Your task to perform on an android device: Open Yahoo.com Image 0: 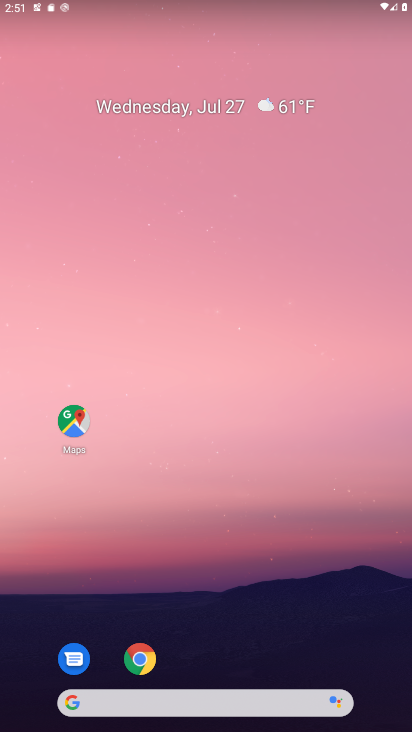
Step 0: drag from (230, 292) to (215, 81)
Your task to perform on an android device: Open Yahoo.com Image 1: 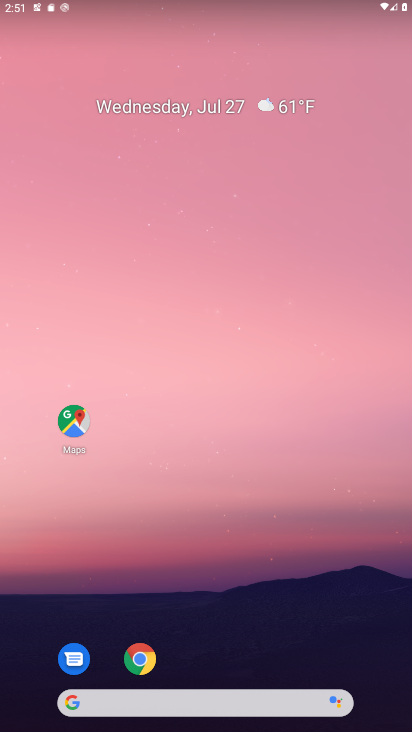
Step 1: click (132, 668)
Your task to perform on an android device: Open Yahoo.com Image 2: 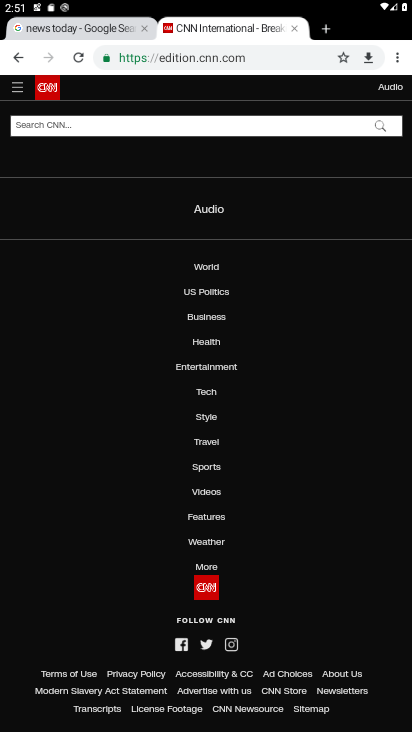
Step 2: click (212, 64)
Your task to perform on an android device: Open Yahoo.com Image 3: 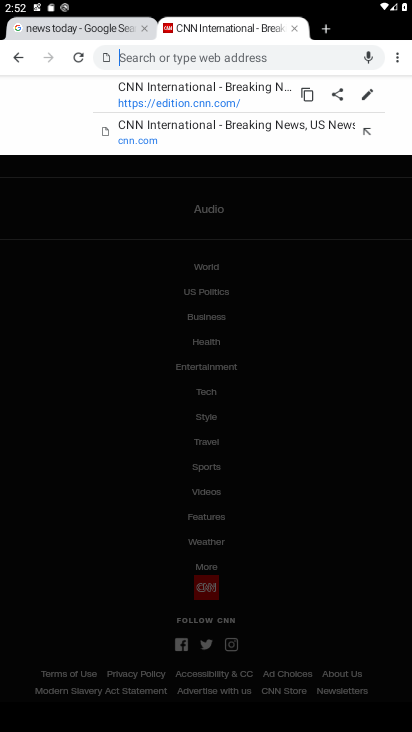
Step 3: type "yahoo.com"
Your task to perform on an android device: Open Yahoo.com Image 4: 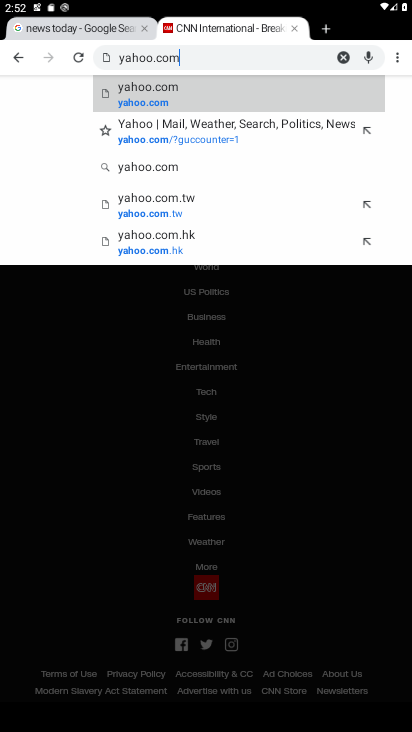
Step 4: click (131, 92)
Your task to perform on an android device: Open Yahoo.com Image 5: 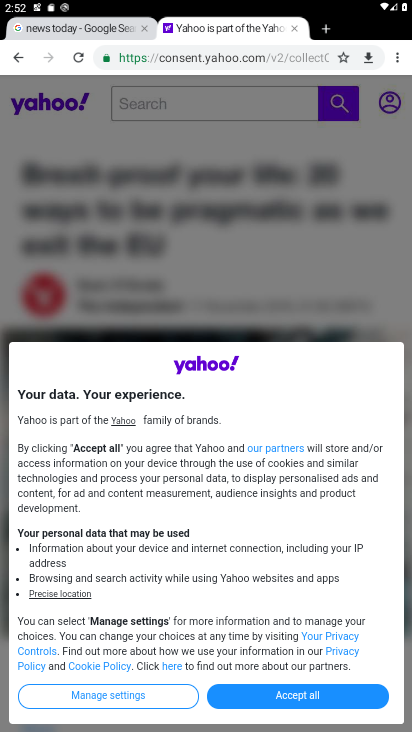
Step 5: task complete